Your task to perform on an android device: What's on my calendar today? Image 0: 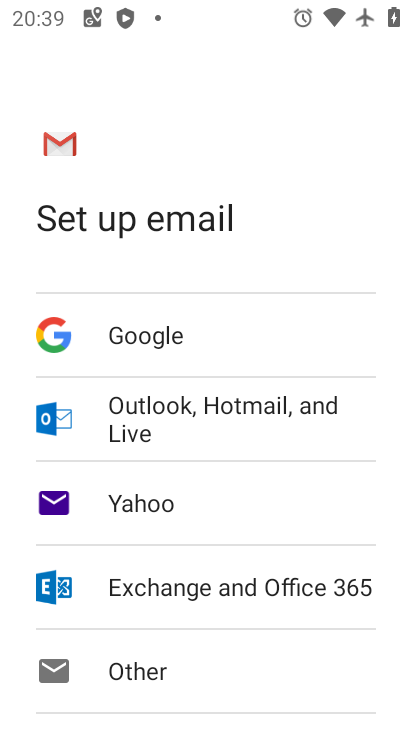
Step 0: press home button
Your task to perform on an android device: What's on my calendar today? Image 1: 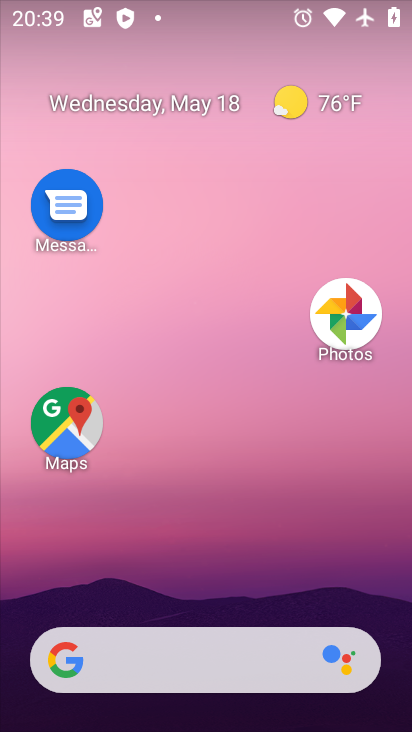
Step 1: drag from (179, 578) to (161, 114)
Your task to perform on an android device: What's on my calendar today? Image 2: 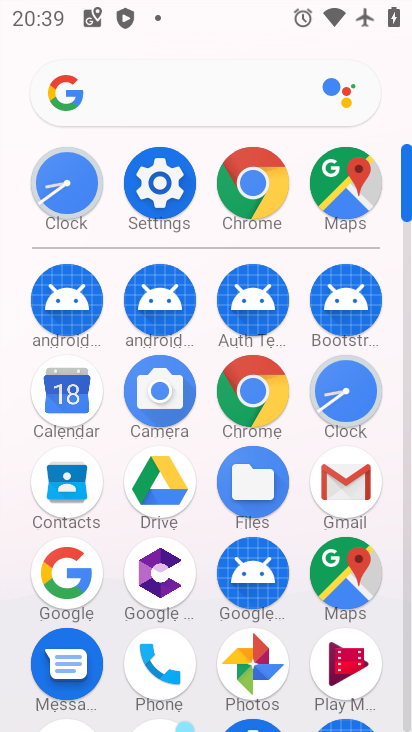
Step 2: click (62, 413)
Your task to perform on an android device: What's on my calendar today? Image 3: 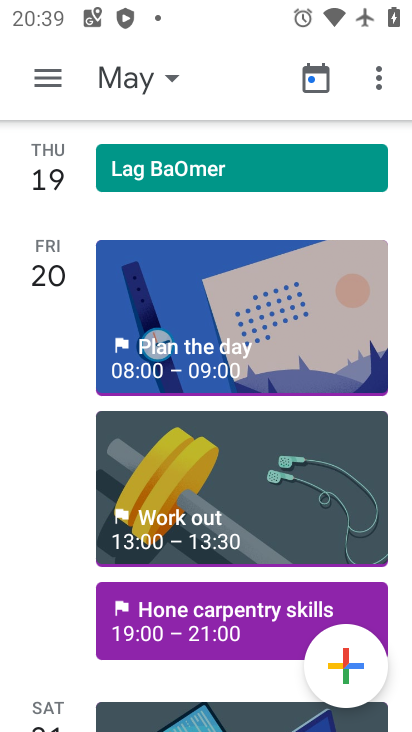
Step 3: click (313, 85)
Your task to perform on an android device: What's on my calendar today? Image 4: 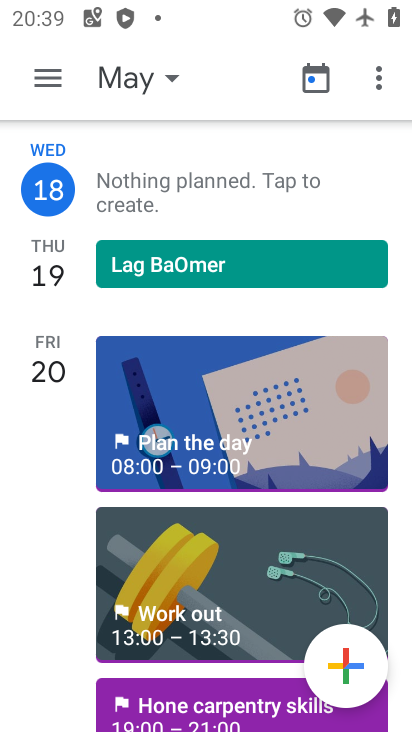
Step 4: click (56, 183)
Your task to perform on an android device: What's on my calendar today? Image 5: 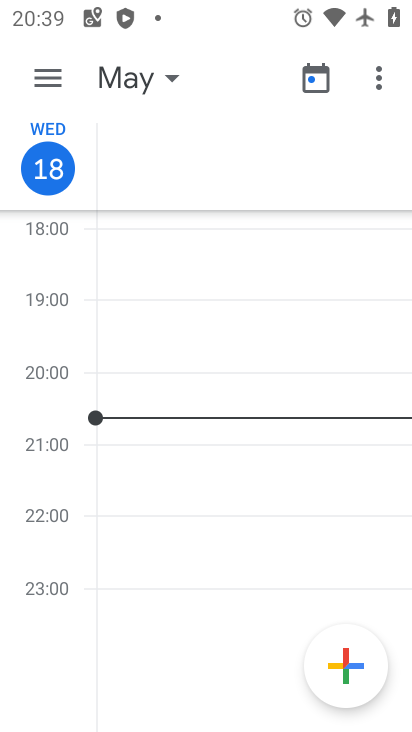
Step 5: task complete